Your task to perform on an android device: toggle sleep mode Image 0: 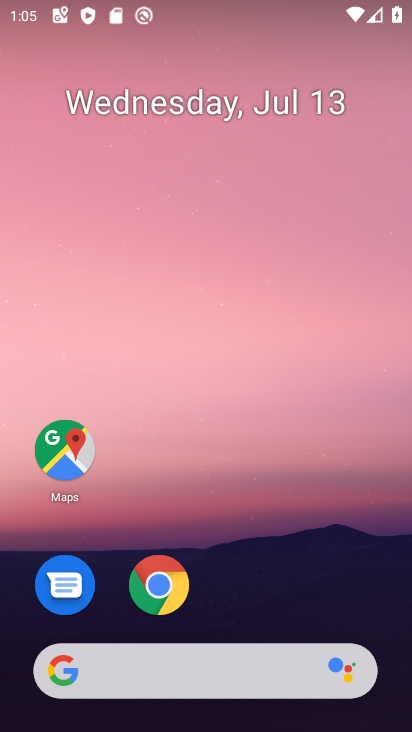
Step 0: drag from (188, 666) to (305, 17)
Your task to perform on an android device: toggle sleep mode Image 1: 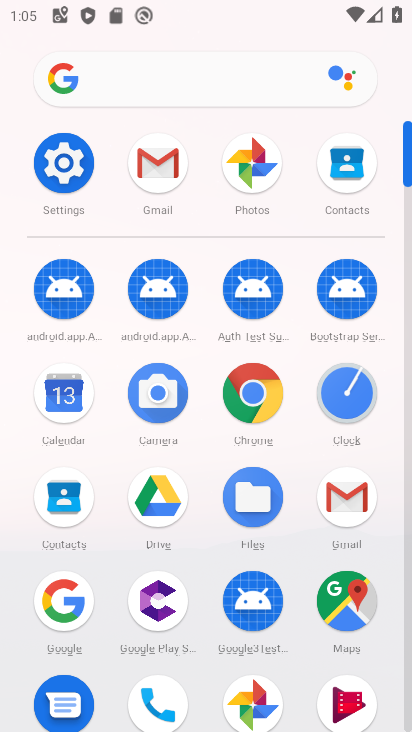
Step 1: click (65, 163)
Your task to perform on an android device: toggle sleep mode Image 2: 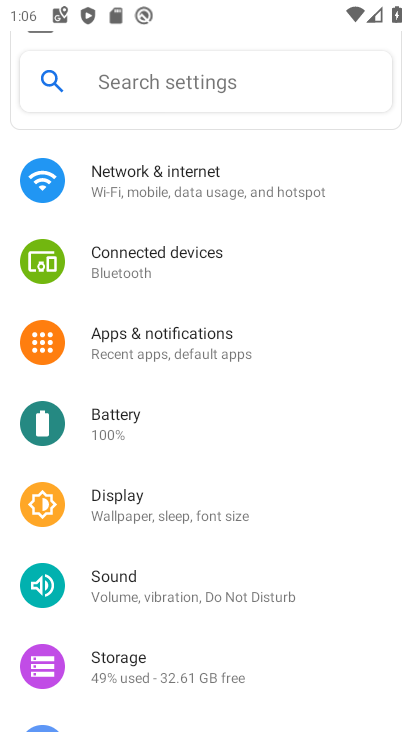
Step 2: click (204, 511)
Your task to perform on an android device: toggle sleep mode Image 3: 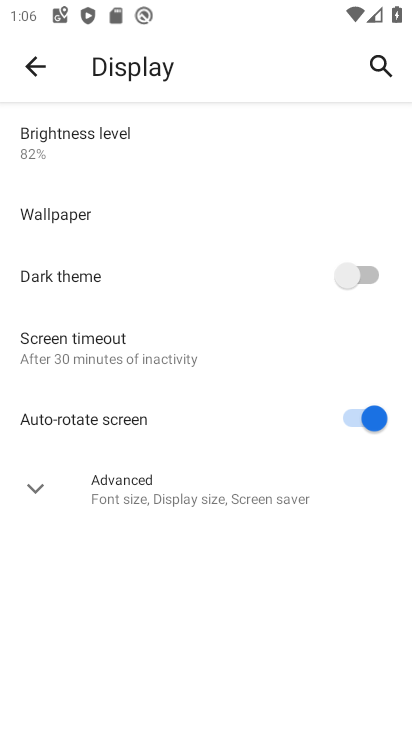
Step 3: task complete